Your task to perform on an android device: create a new album in the google photos Image 0: 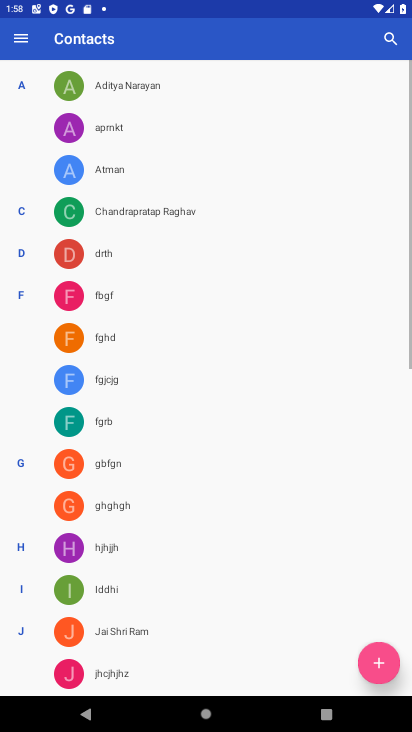
Step 0: click (38, 690)
Your task to perform on an android device: create a new album in the google photos Image 1: 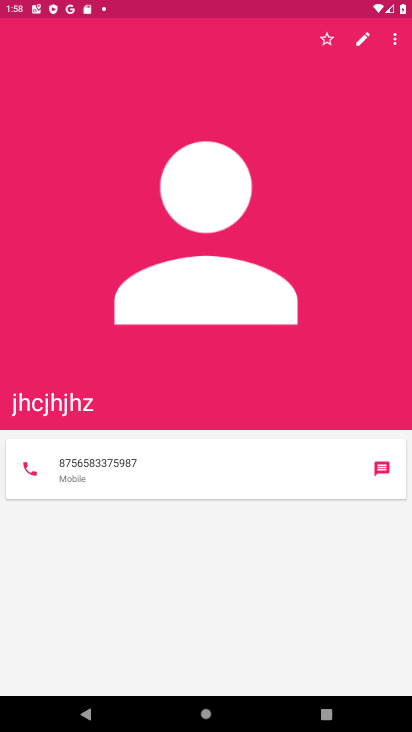
Step 1: press home button
Your task to perform on an android device: create a new album in the google photos Image 2: 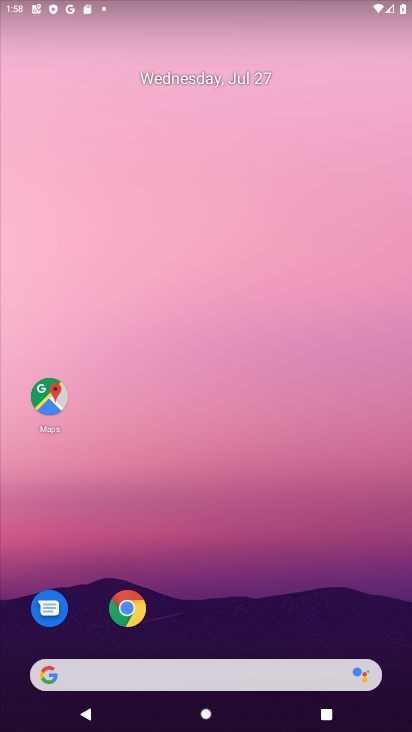
Step 2: drag from (36, 706) to (238, 193)
Your task to perform on an android device: create a new album in the google photos Image 3: 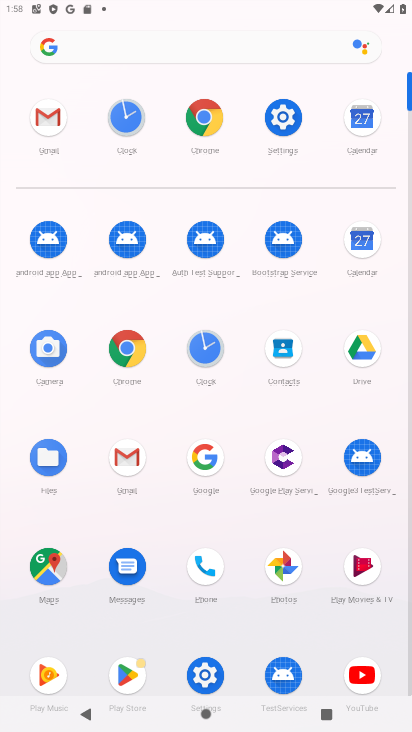
Step 3: click (298, 559)
Your task to perform on an android device: create a new album in the google photos Image 4: 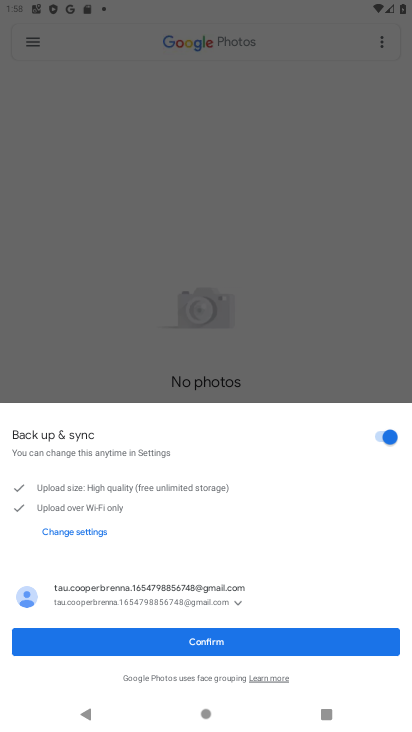
Step 4: click (247, 646)
Your task to perform on an android device: create a new album in the google photos Image 5: 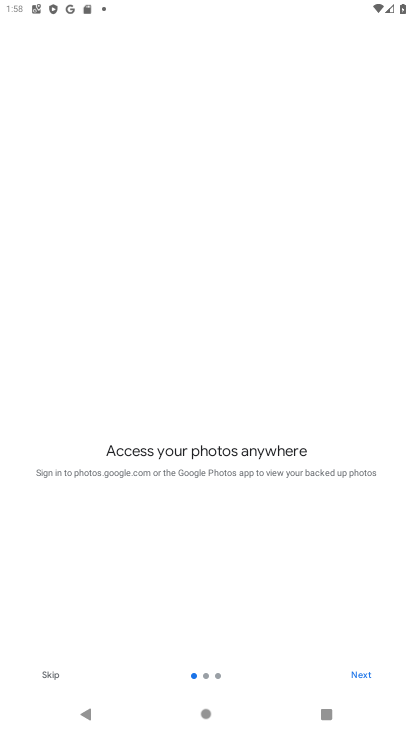
Step 5: click (349, 672)
Your task to perform on an android device: create a new album in the google photos Image 6: 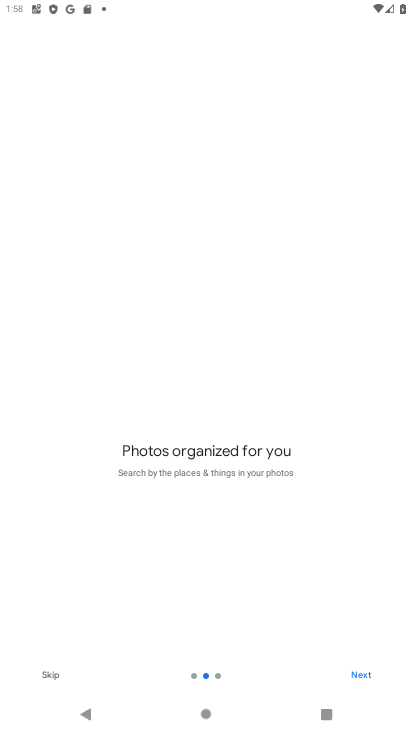
Step 6: click (363, 662)
Your task to perform on an android device: create a new album in the google photos Image 7: 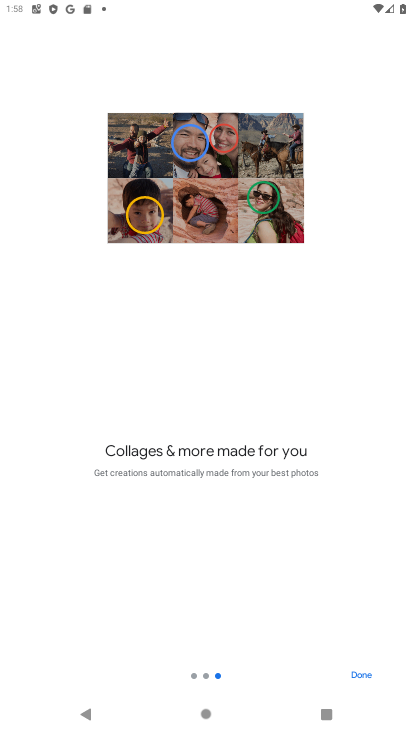
Step 7: click (357, 679)
Your task to perform on an android device: create a new album in the google photos Image 8: 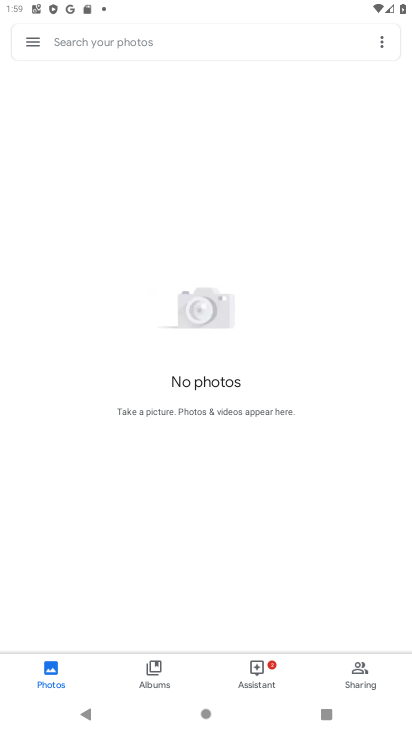
Step 8: click (389, 49)
Your task to perform on an android device: create a new album in the google photos Image 9: 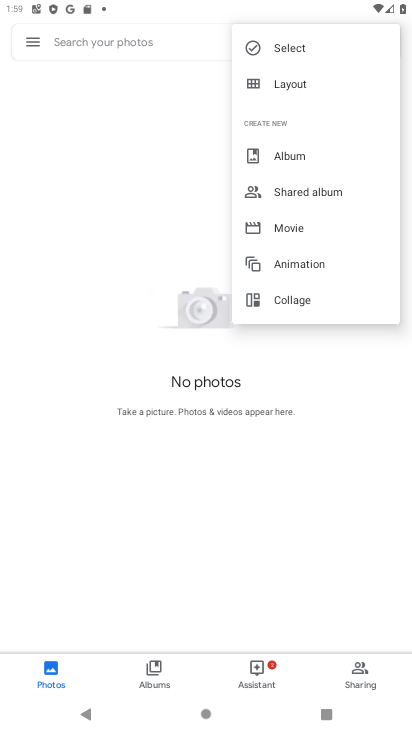
Step 9: click (302, 49)
Your task to perform on an android device: create a new album in the google photos Image 10: 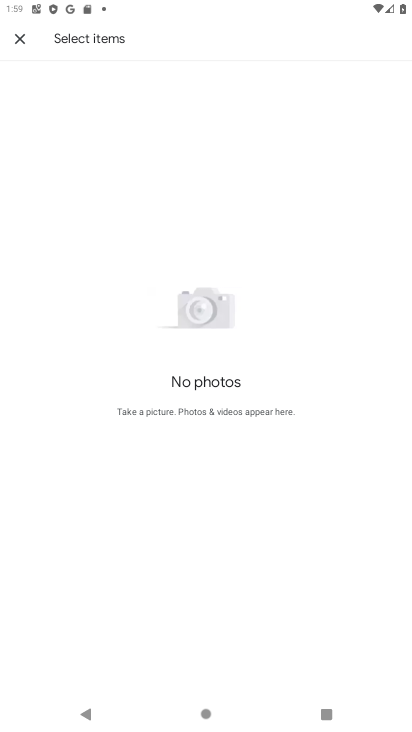
Step 10: task complete